Your task to perform on an android device: Open the calendar app, open the side menu, and click the "Day" option Image 0: 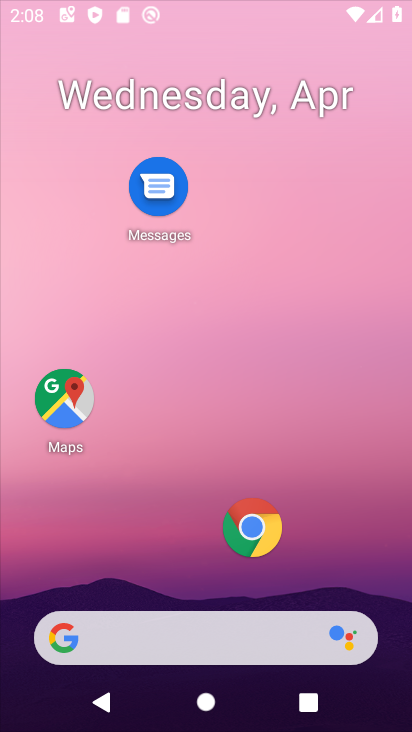
Step 0: press home button
Your task to perform on an android device: Open the calendar app, open the side menu, and click the "Day" option Image 1: 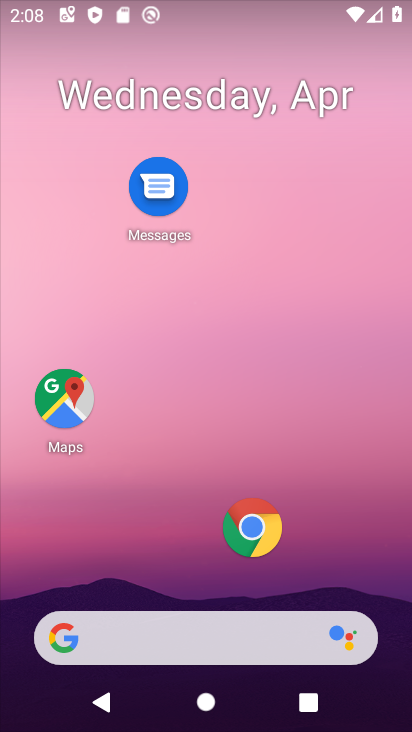
Step 1: drag from (213, 565) to (212, 272)
Your task to perform on an android device: Open the calendar app, open the side menu, and click the "Day" option Image 2: 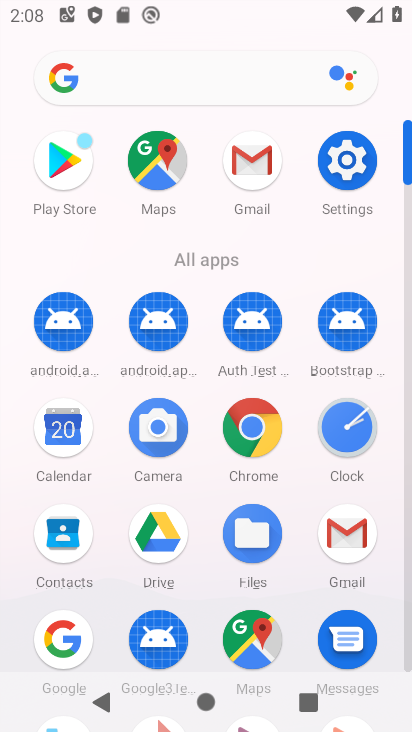
Step 2: click (65, 440)
Your task to perform on an android device: Open the calendar app, open the side menu, and click the "Day" option Image 3: 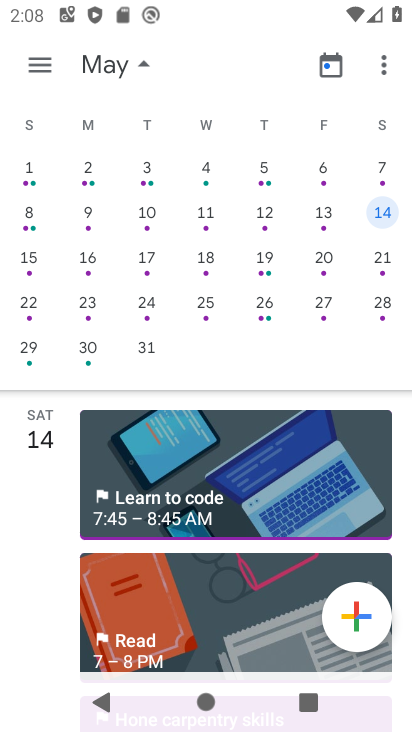
Step 3: click (36, 62)
Your task to perform on an android device: Open the calendar app, open the side menu, and click the "Day" option Image 4: 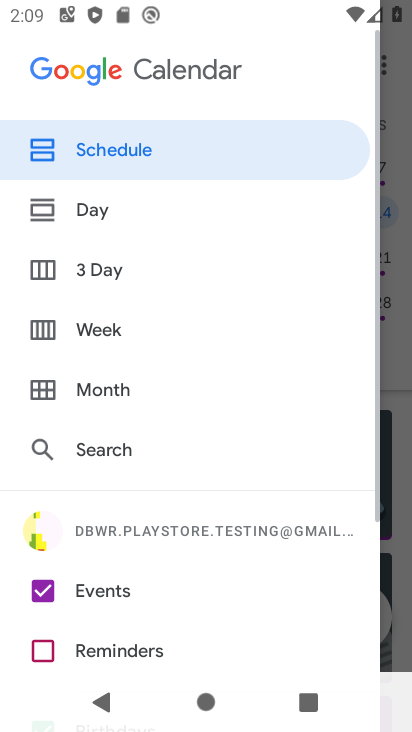
Step 4: click (134, 215)
Your task to perform on an android device: Open the calendar app, open the side menu, and click the "Day" option Image 5: 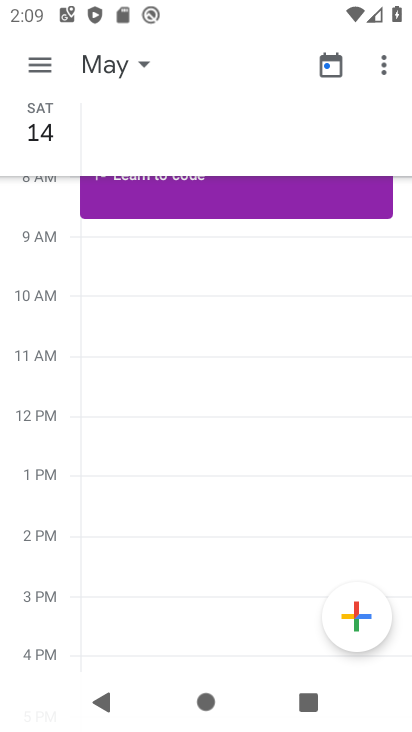
Step 5: task complete